Your task to perform on an android device: Open sound settings Image 0: 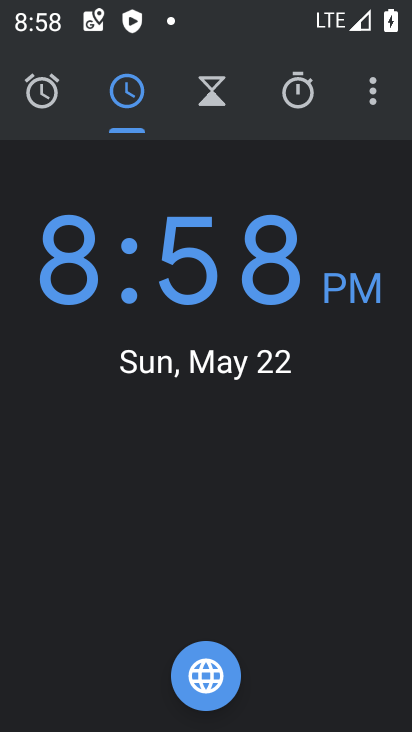
Step 0: press home button
Your task to perform on an android device: Open sound settings Image 1: 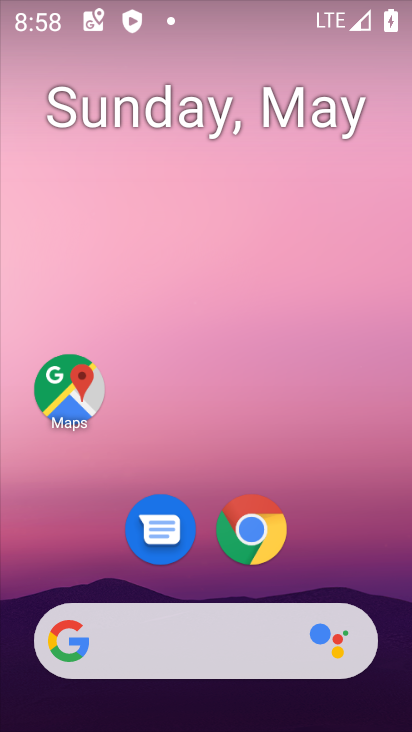
Step 1: drag from (326, 576) to (212, 80)
Your task to perform on an android device: Open sound settings Image 2: 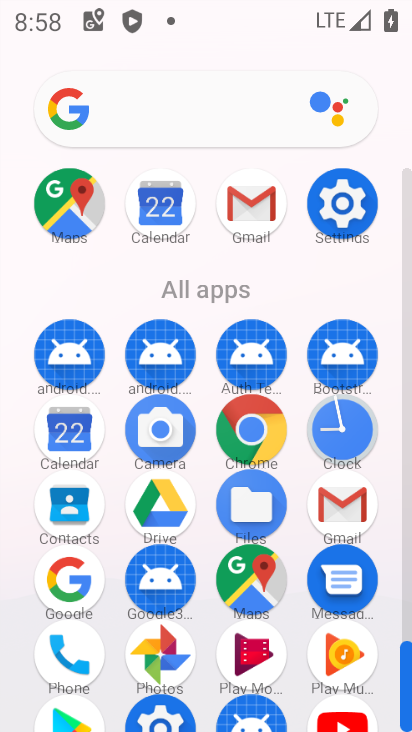
Step 2: click (341, 201)
Your task to perform on an android device: Open sound settings Image 3: 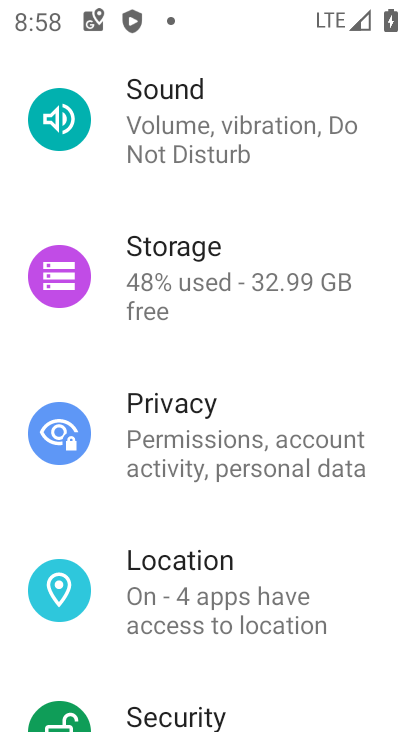
Step 3: click (187, 141)
Your task to perform on an android device: Open sound settings Image 4: 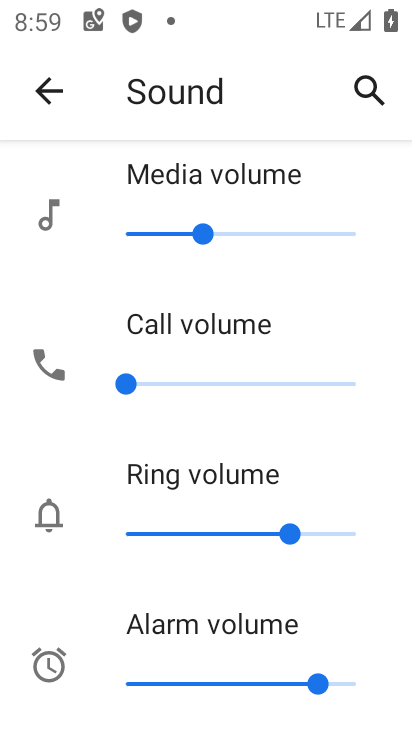
Step 4: task complete